Your task to perform on an android device: open app "Microsoft Outlook" Image 0: 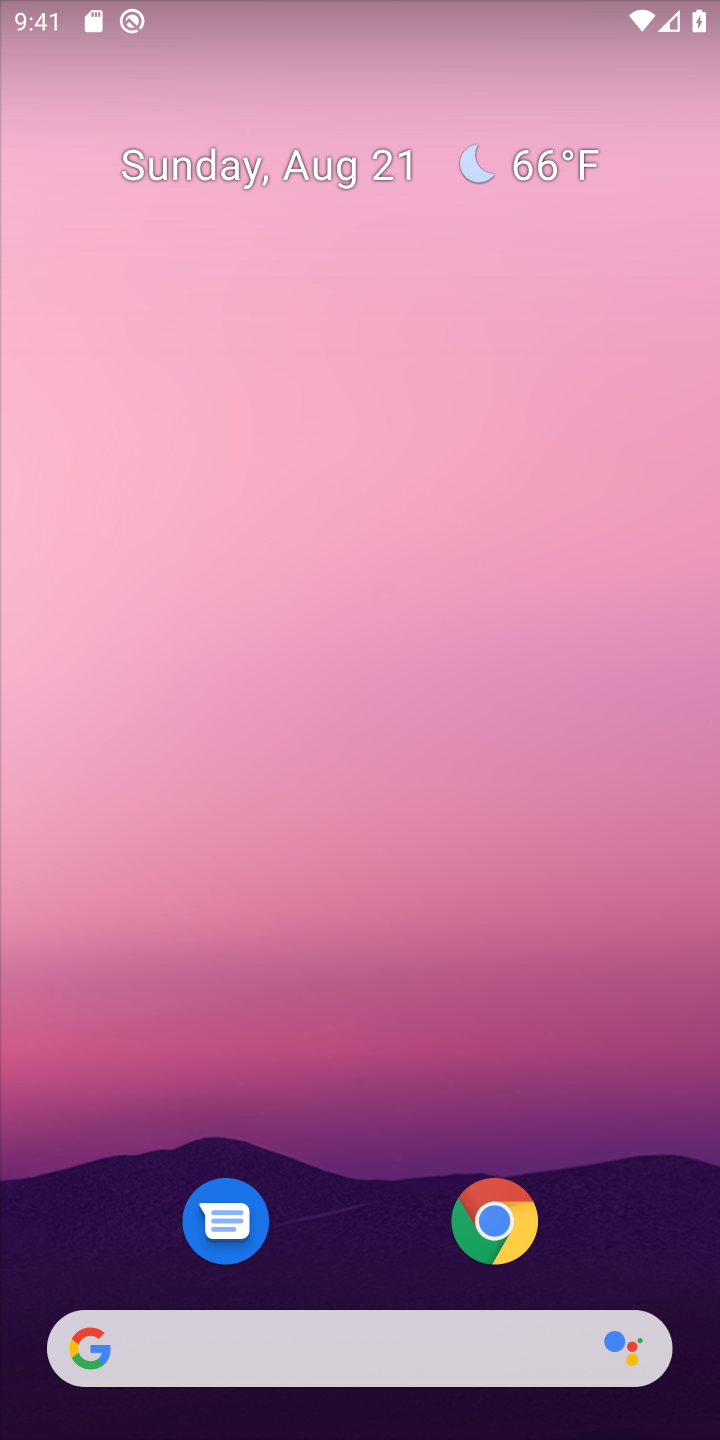
Step 0: drag from (372, 1142) to (380, 192)
Your task to perform on an android device: open app "Microsoft Outlook" Image 1: 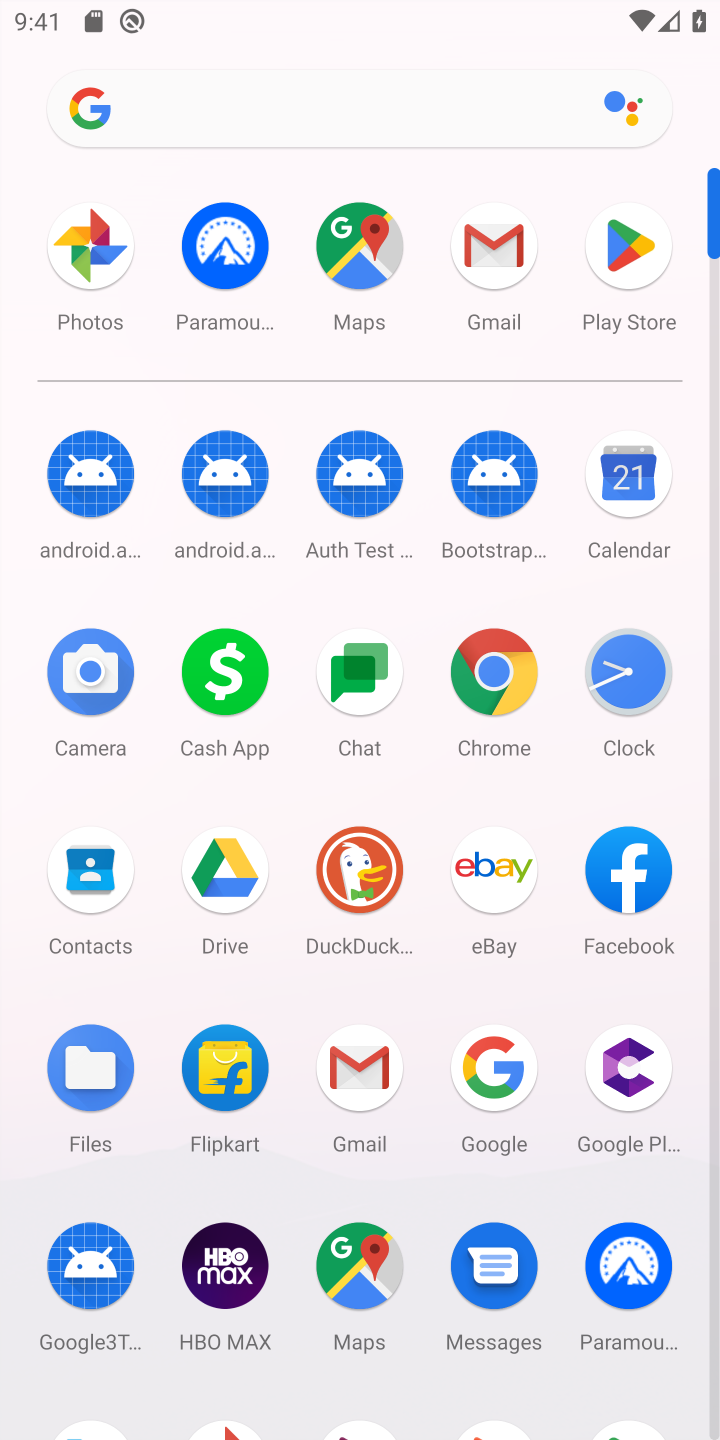
Step 1: click (598, 275)
Your task to perform on an android device: open app "Microsoft Outlook" Image 2: 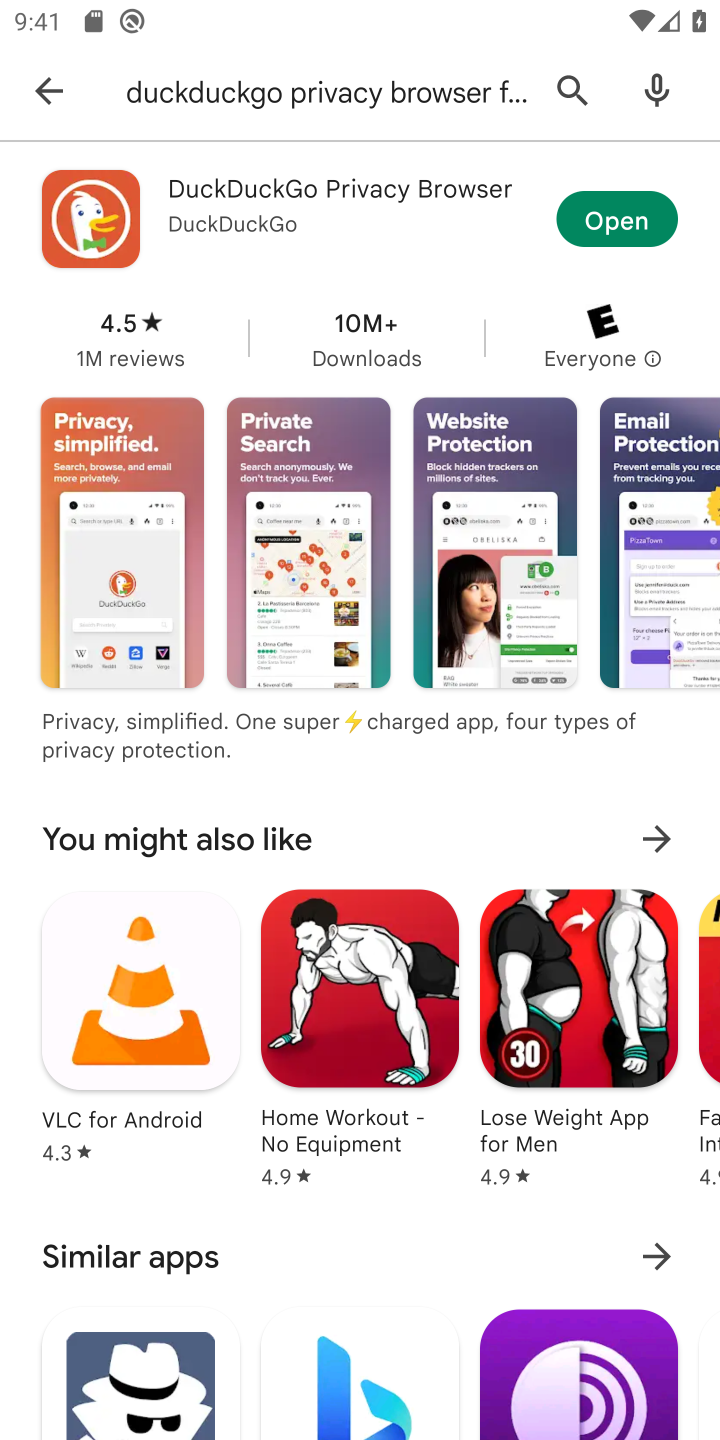
Step 2: click (575, 65)
Your task to perform on an android device: open app "Microsoft Outlook" Image 3: 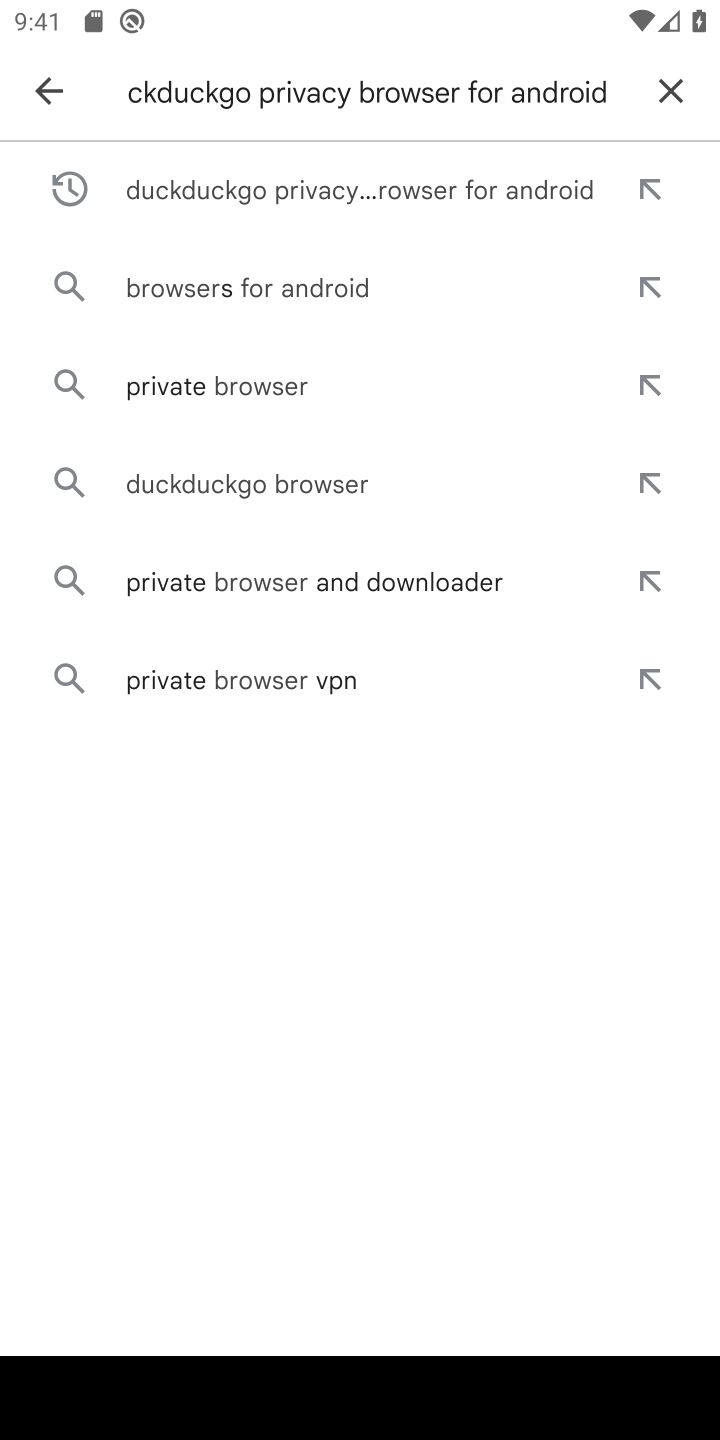
Step 3: click (679, 96)
Your task to perform on an android device: open app "Microsoft Outlook" Image 4: 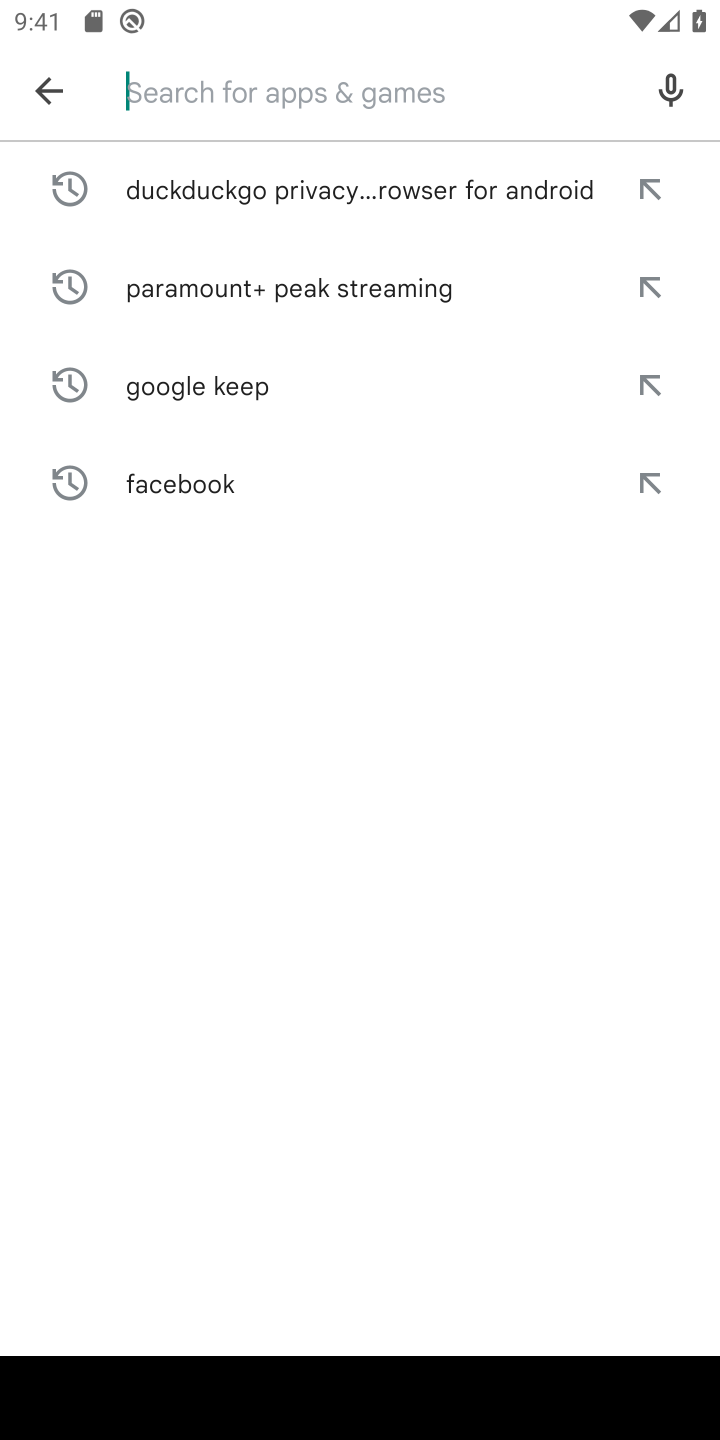
Step 4: type "Microsoft Outlook"
Your task to perform on an android device: open app "Microsoft Outlook" Image 5: 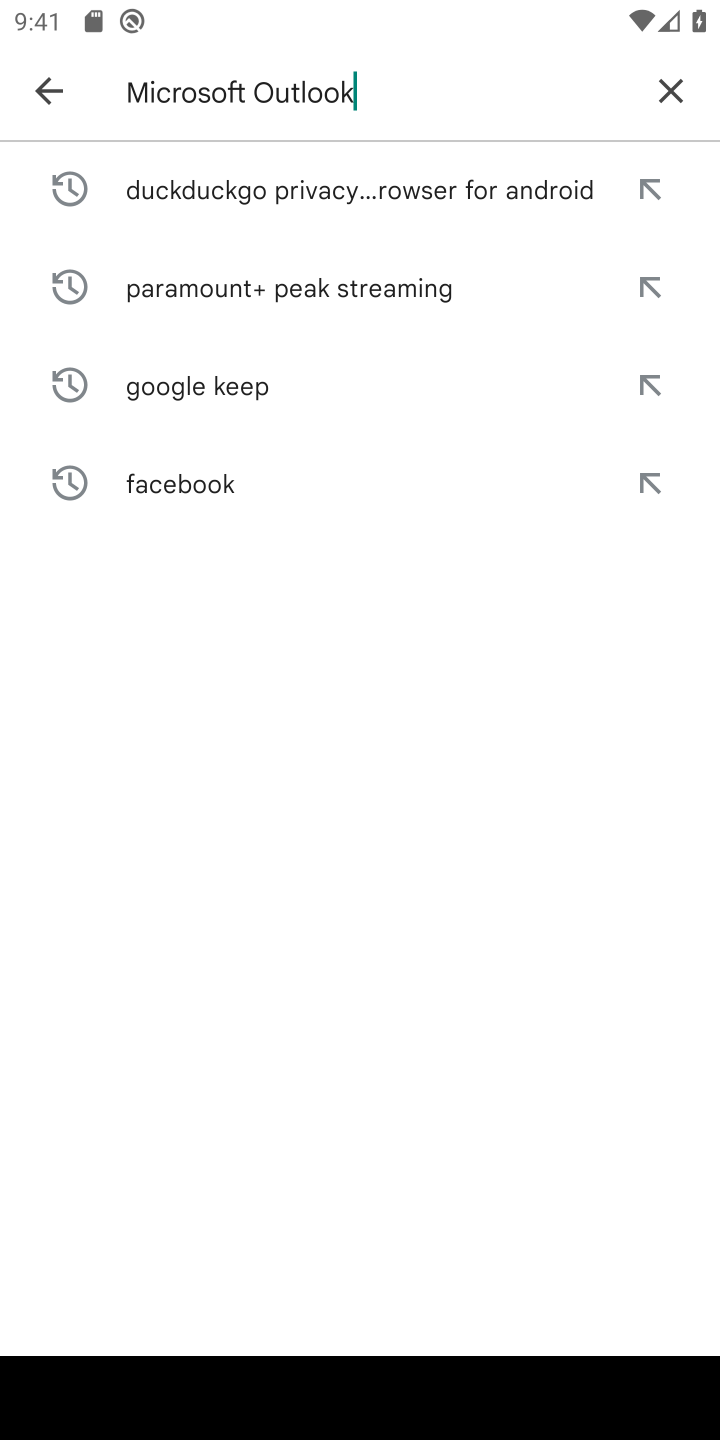
Step 5: type ""
Your task to perform on an android device: open app "Microsoft Outlook" Image 6: 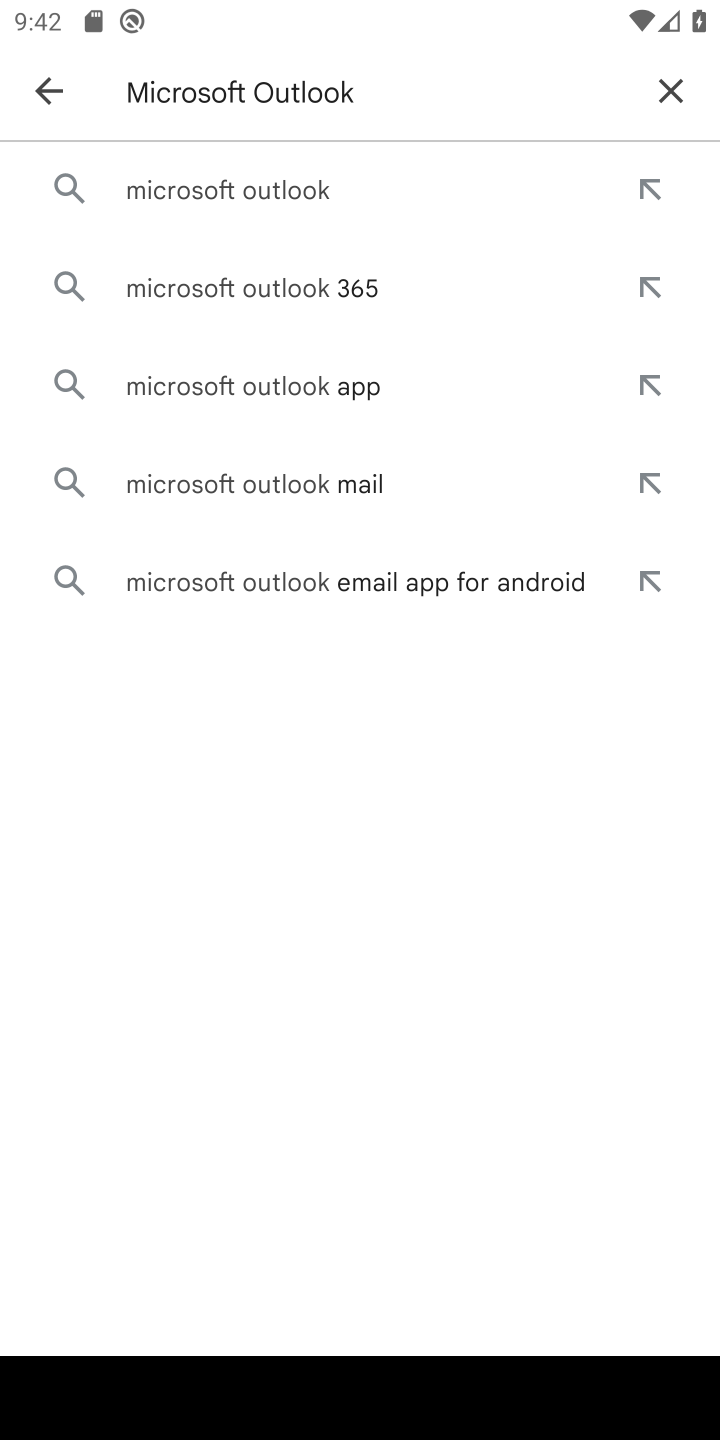
Step 6: click (215, 134)
Your task to perform on an android device: open app "Microsoft Outlook" Image 7: 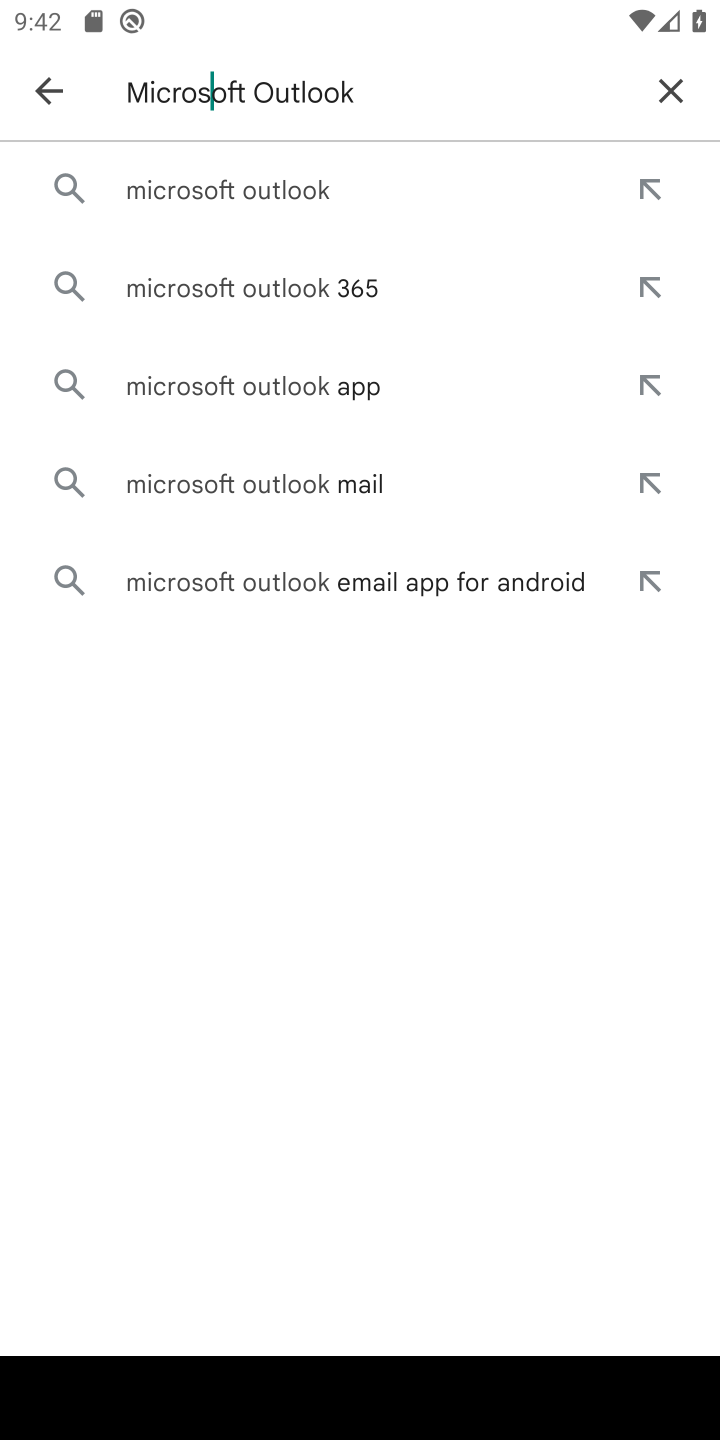
Step 7: click (280, 188)
Your task to perform on an android device: open app "Microsoft Outlook" Image 8: 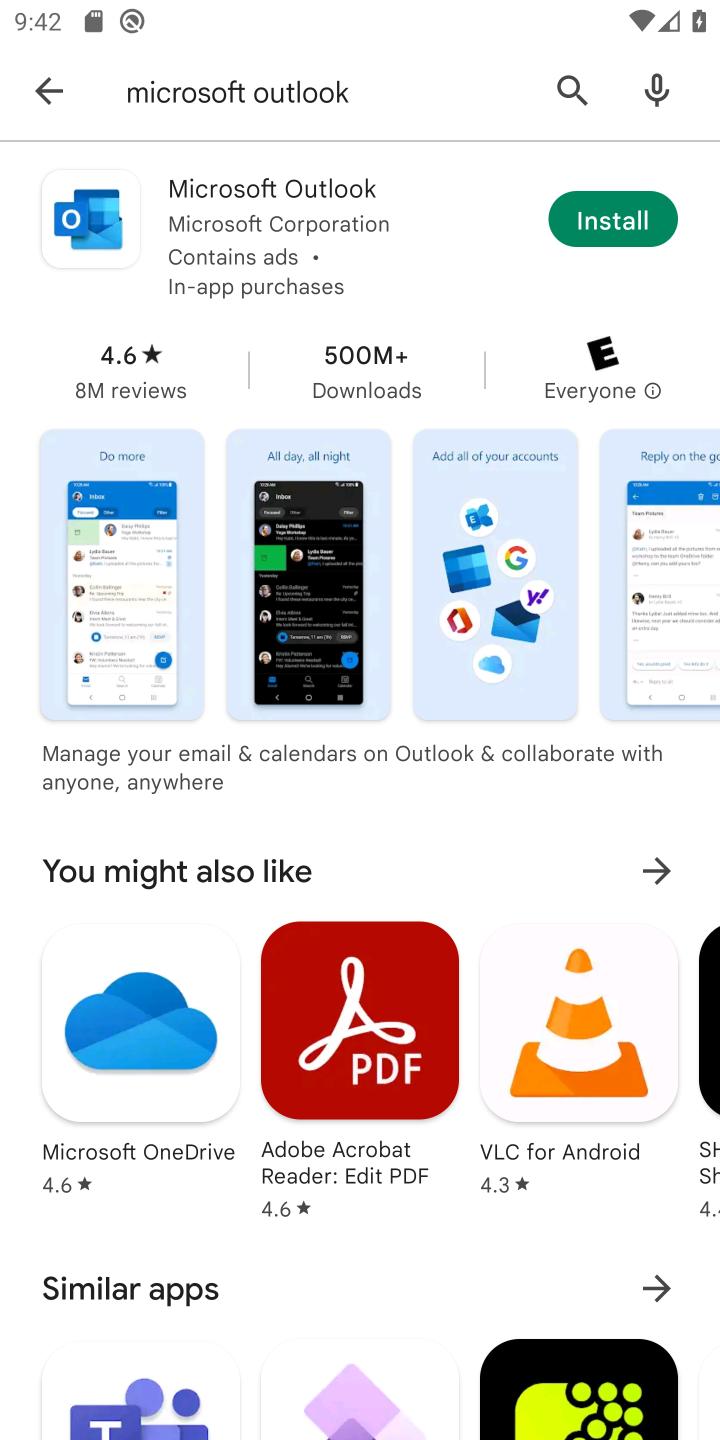
Step 8: task complete